Your task to perform on an android device: toggle wifi Image 0: 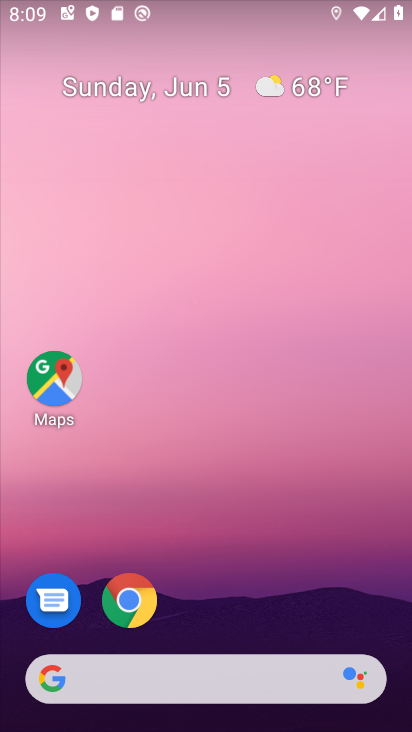
Step 0: drag from (257, 566) to (249, 16)
Your task to perform on an android device: toggle wifi Image 1: 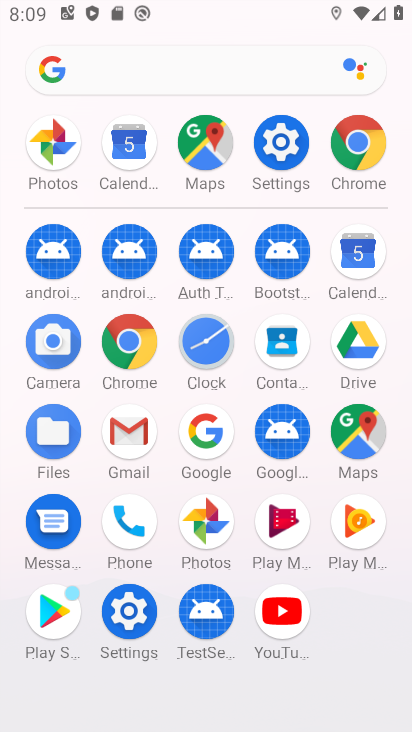
Step 1: click (273, 126)
Your task to perform on an android device: toggle wifi Image 2: 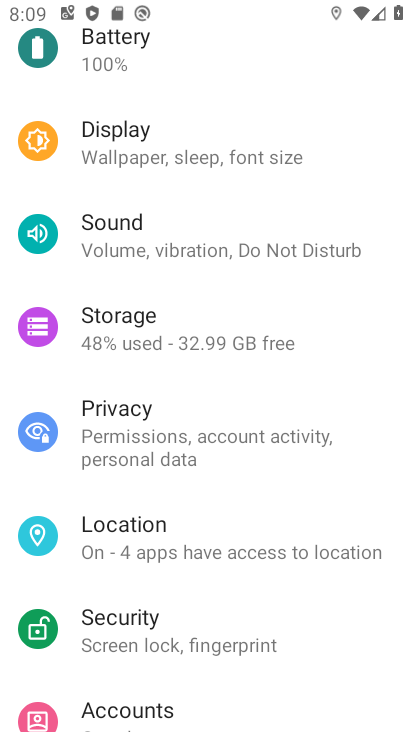
Step 2: drag from (271, 141) to (274, 640)
Your task to perform on an android device: toggle wifi Image 3: 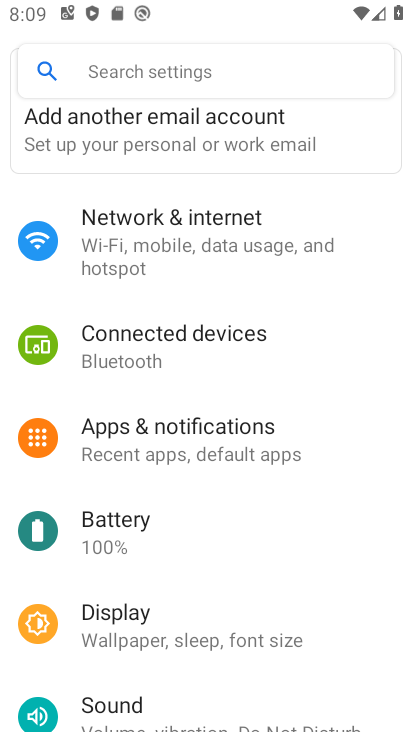
Step 3: click (263, 247)
Your task to perform on an android device: toggle wifi Image 4: 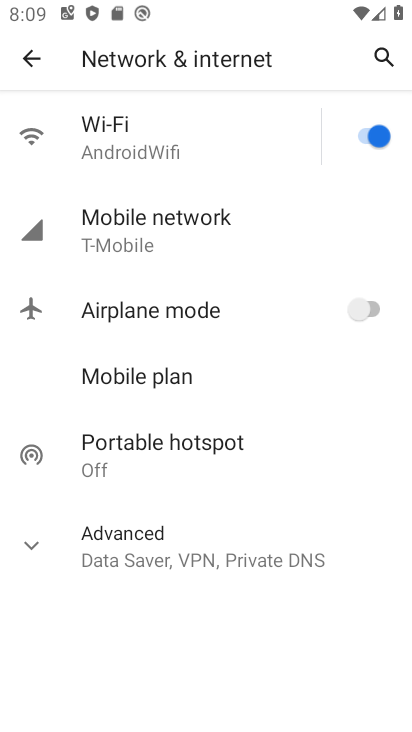
Step 4: click (369, 138)
Your task to perform on an android device: toggle wifi Image 5: 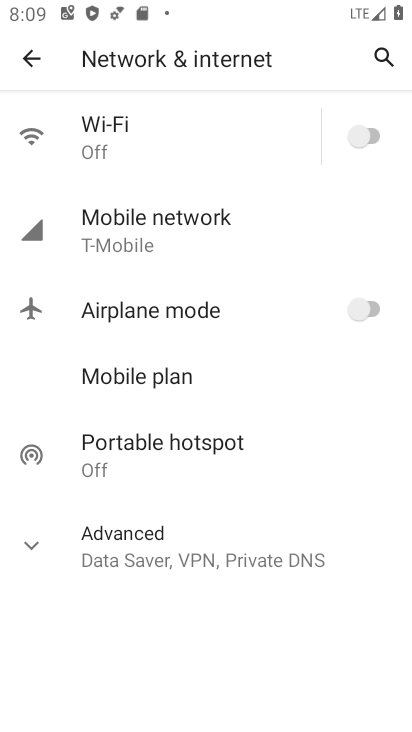
Step 5: task complete